Your task to perform on an android device: move an email to a new category in the gmail app Image 0: 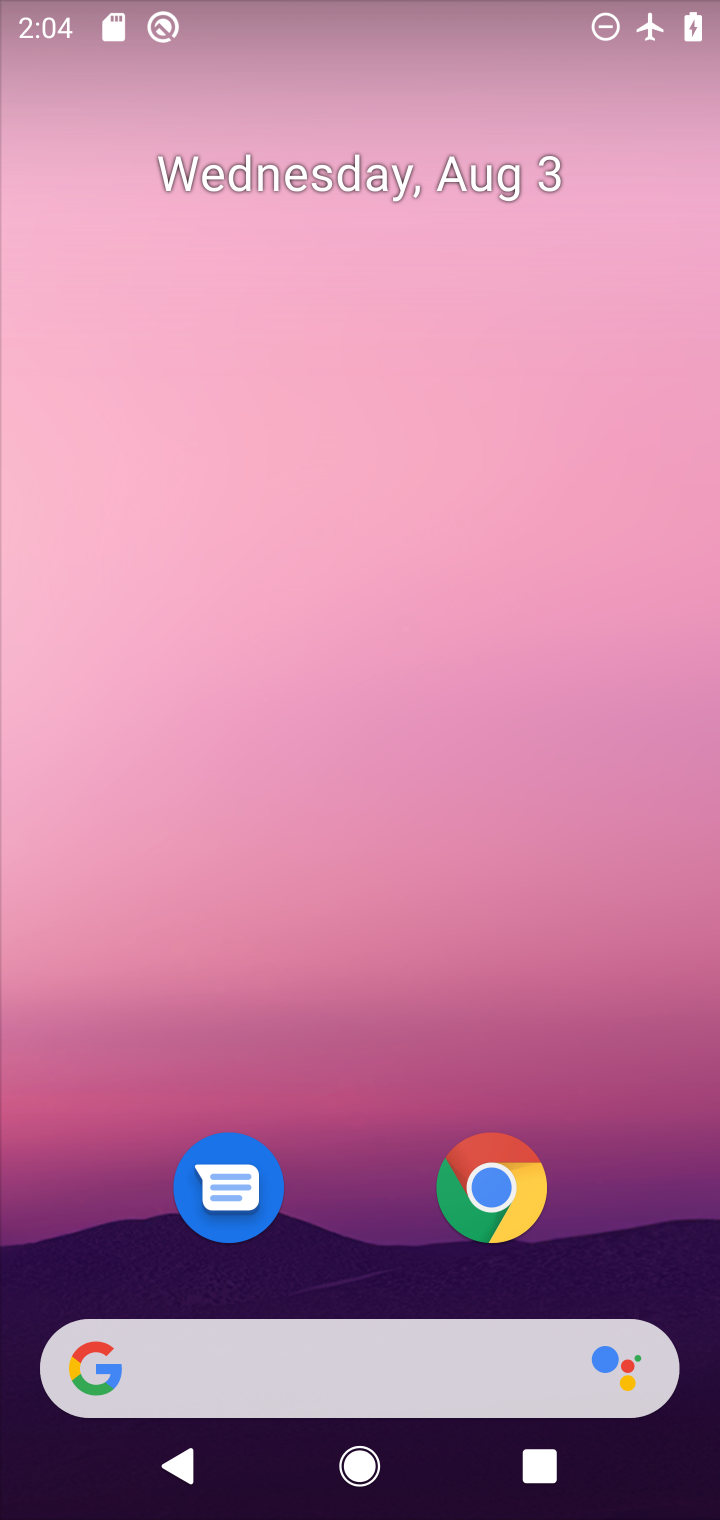
Step 0: drag from (369, 1083) to (392, 0)
Your task to perform on an android device: move an email to a new category in the gmail app Image 1: 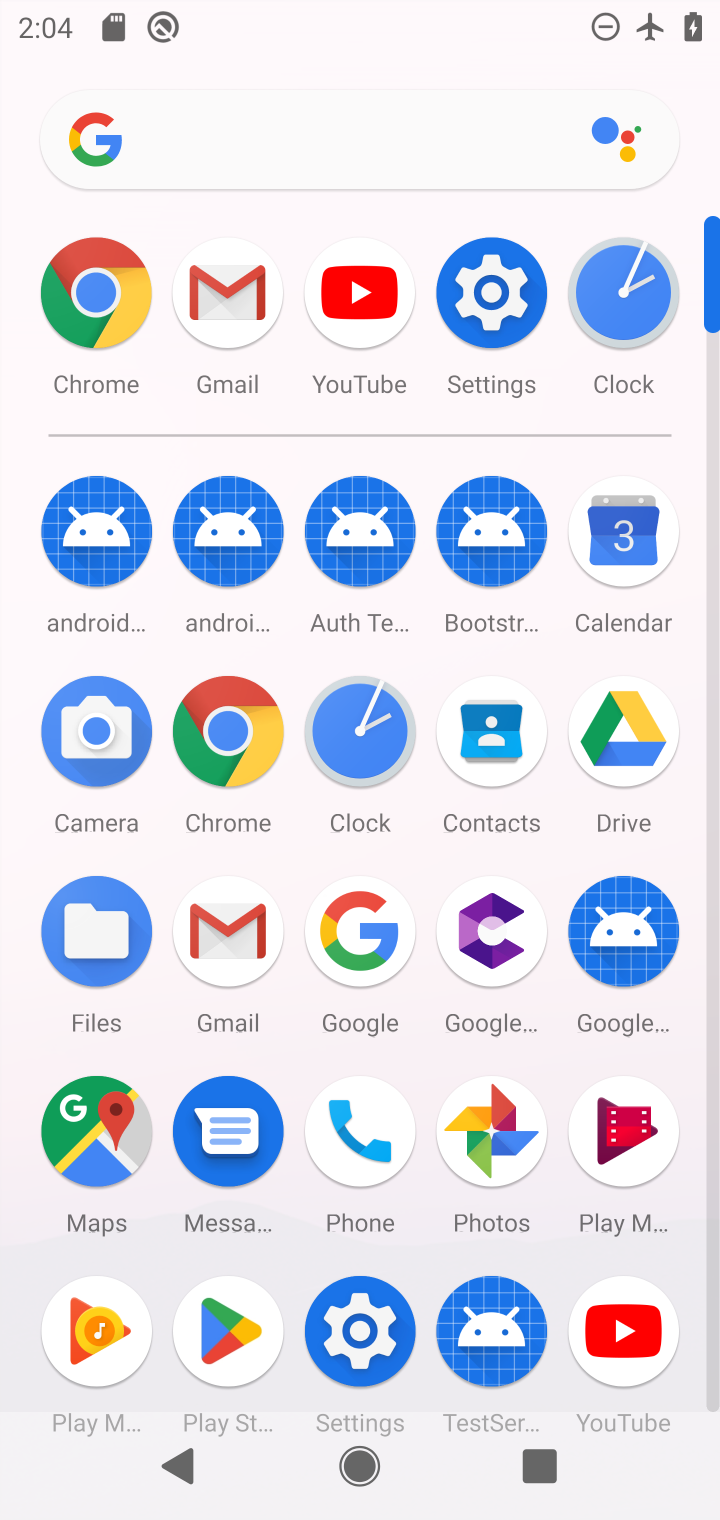
Step 1: click (225, 300)
Your task to perform on an android device: move an email to a new category in the gmail app Image 2: 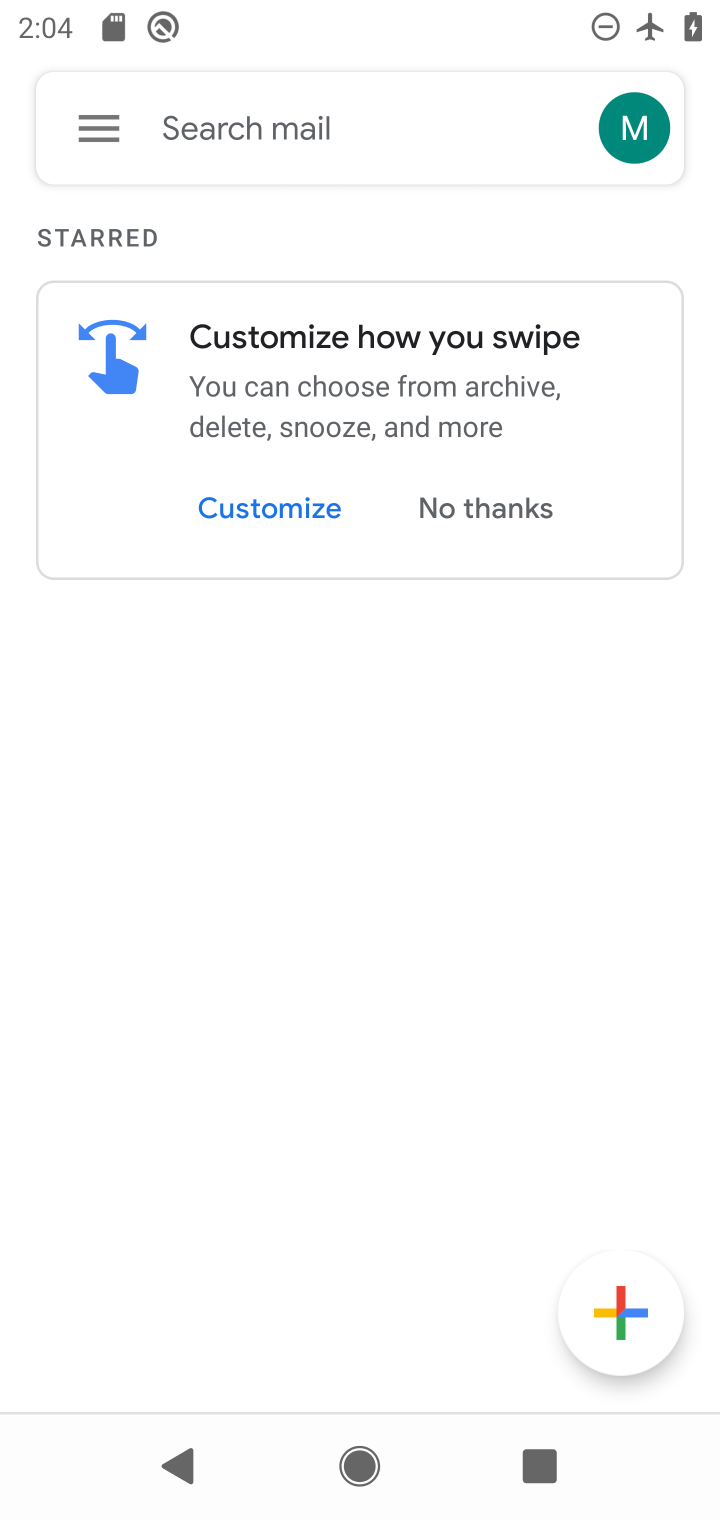
Step 2: click (99, 133)
Your task to perform on an android device: move an email to a new category in the gmail app Image 3: 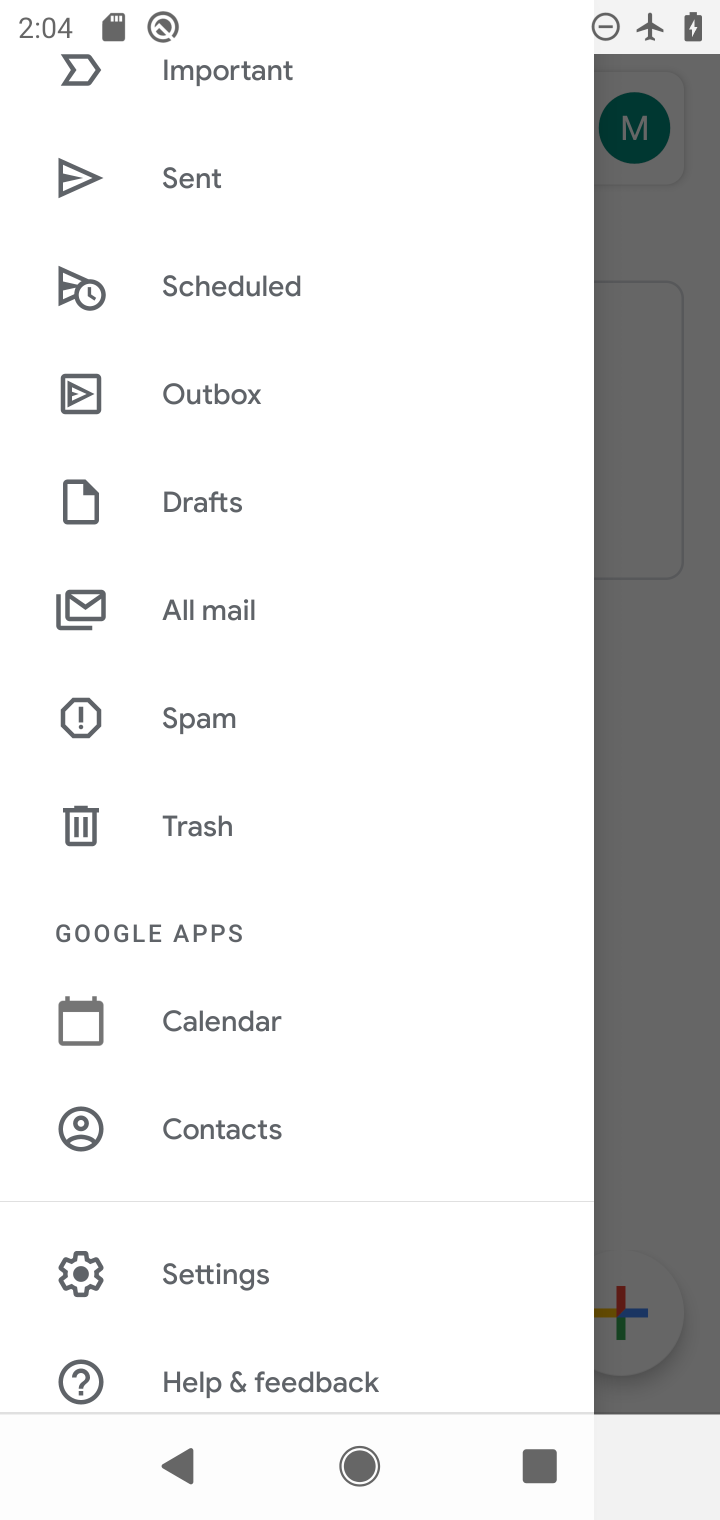
Step 3: click (172, 599)
Your task to perform on an android device: move an email to a new category in the gmail app Image 4: 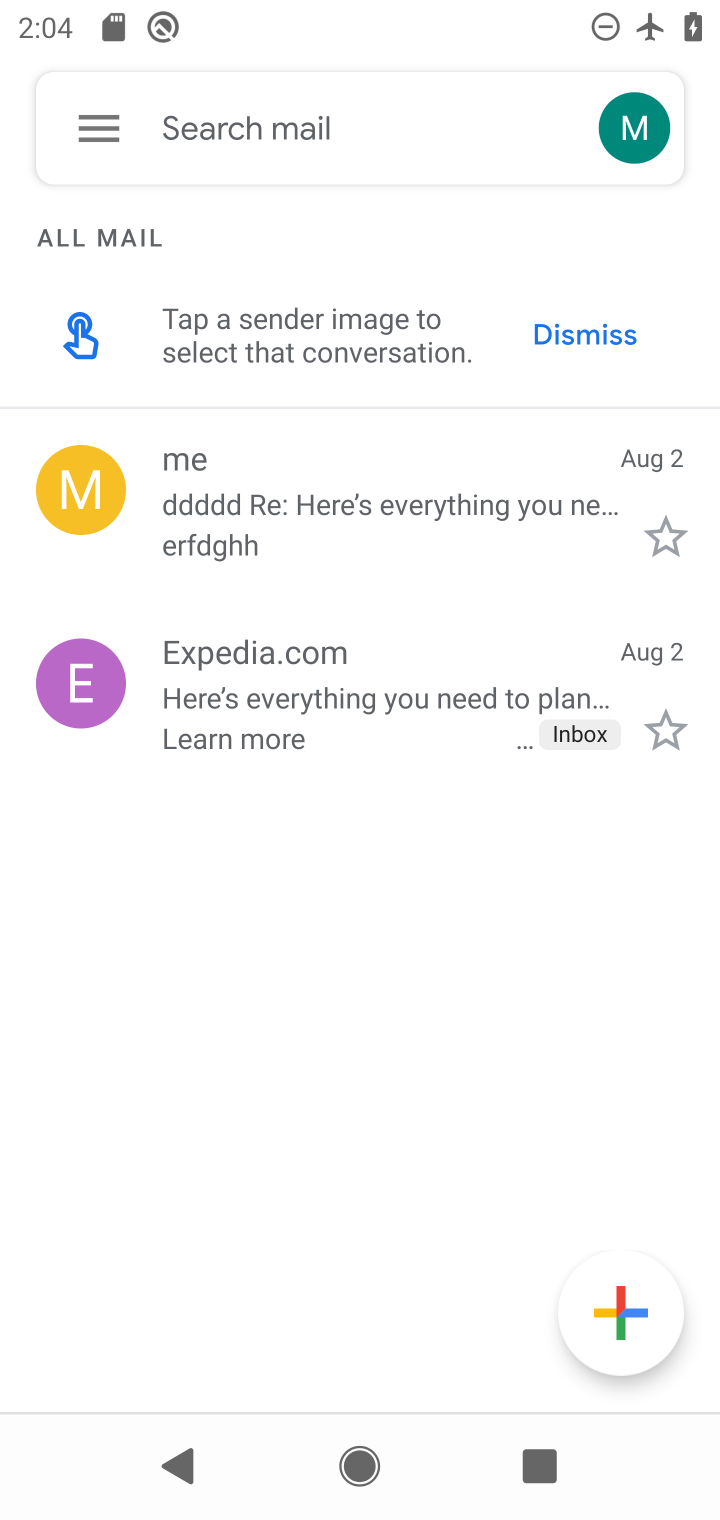
Step 4: click (419, 496)
Your task to perform on an android device: move an email to a new category in the gmail app Image 5: 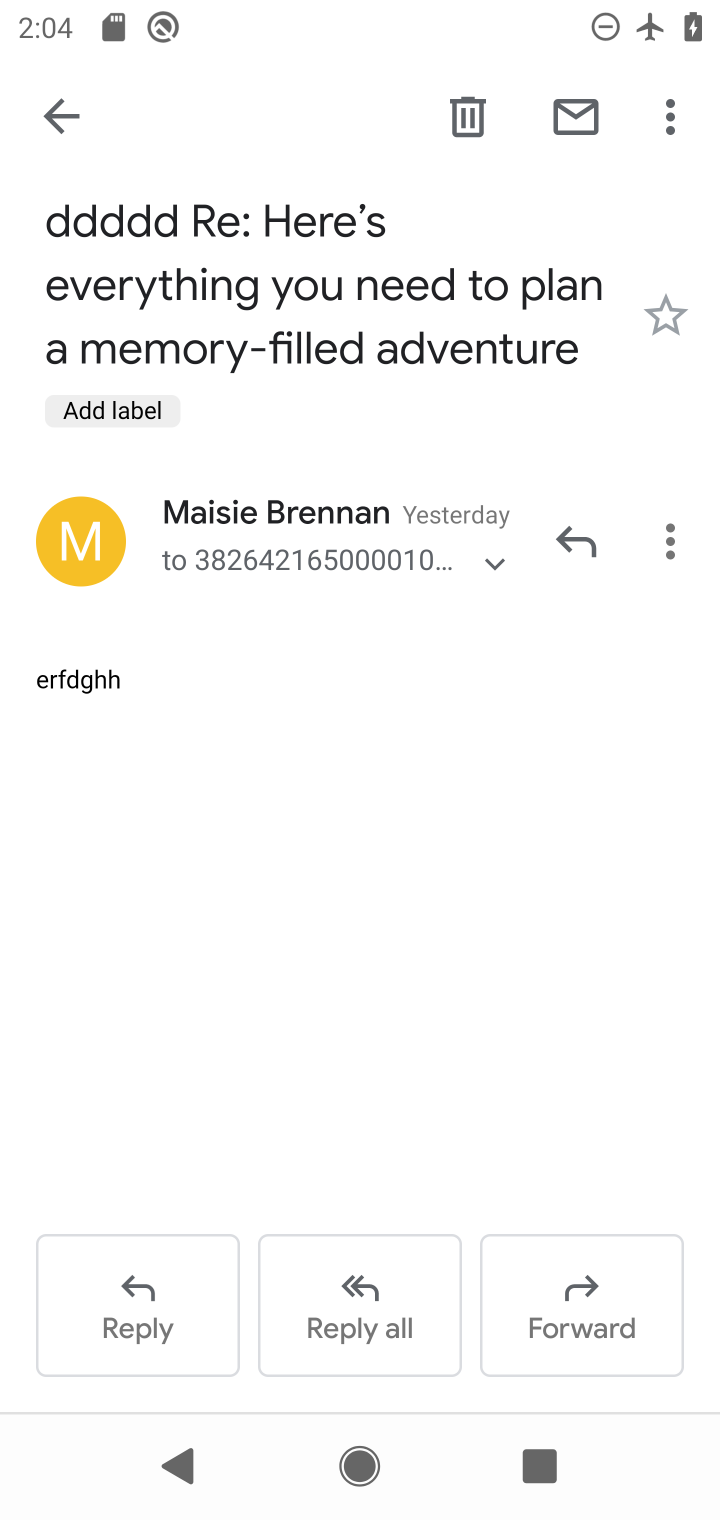
Step 5: click (674, 127)
Your task to perform on an android device: move an email to a new category in the gmail app Image 6: 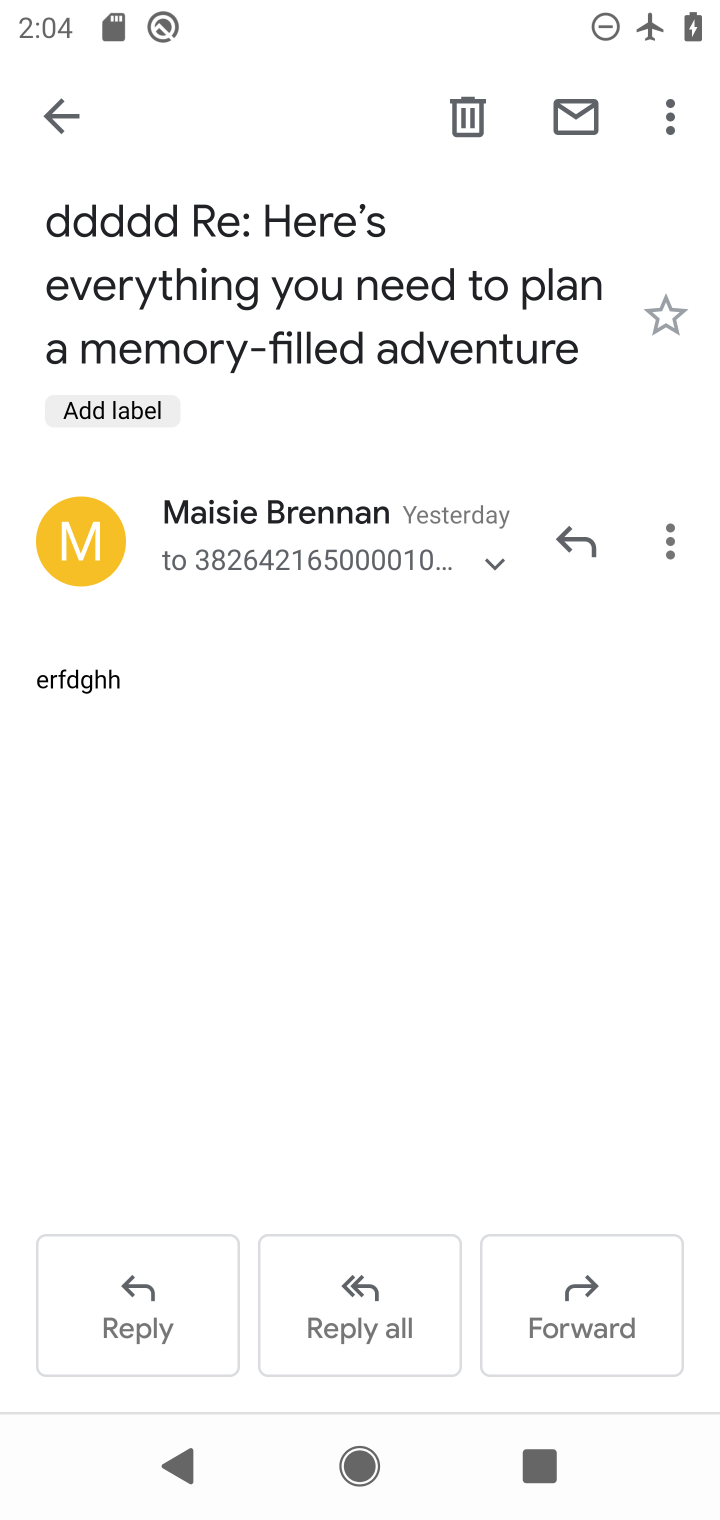
Step 6: click (674, 124)
Your task to perform on an android device: move an email to a new category in the gmail app Image 7: 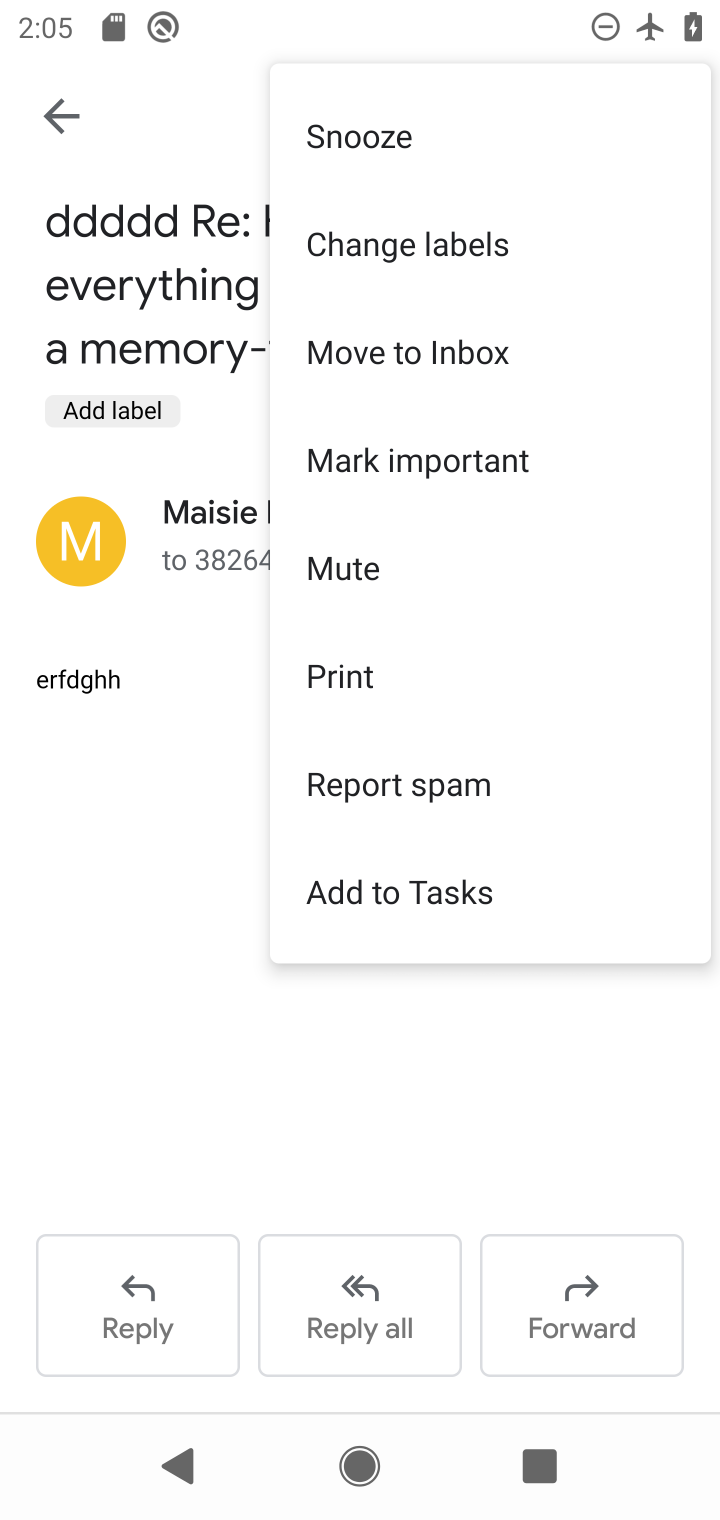
Step 7: click (462, 347)
Your task to perform on an android device: move an email to a new category in the gmail app Image 8: 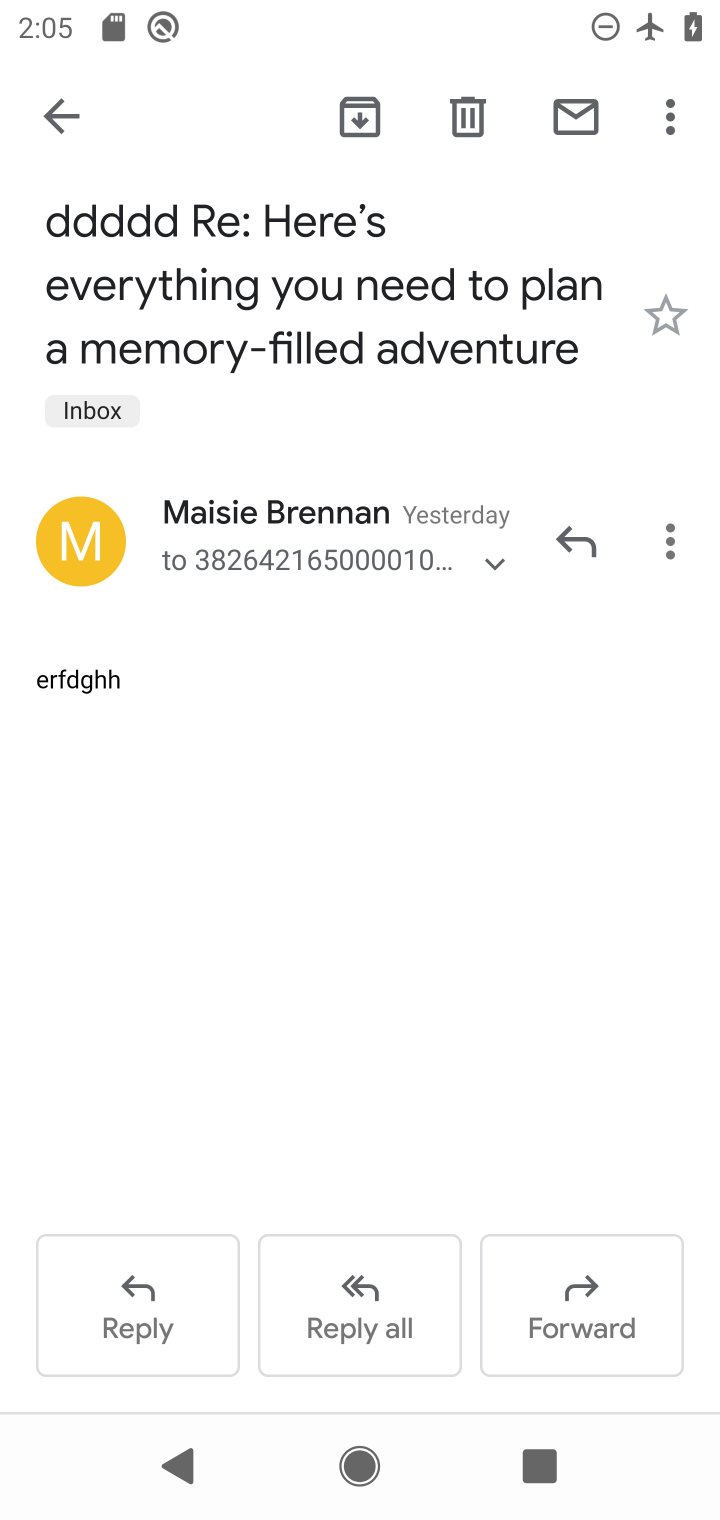
Step 8: task complete